Your task to perform on an android device: turn on location history Image 0: 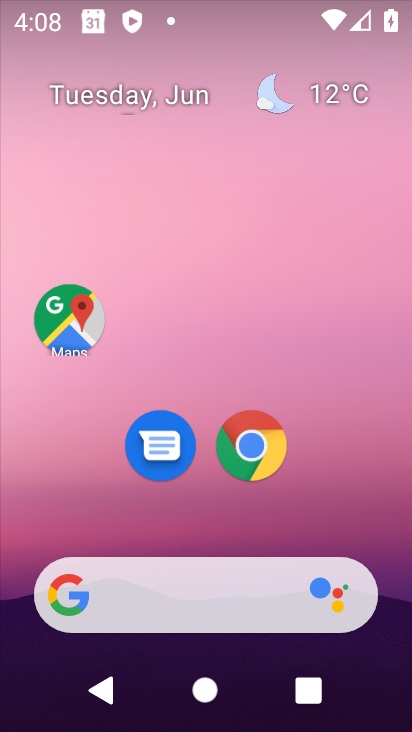
Step 0: drag from (364, 506) to (388, 0)
Your task to perform on an android device: turn on location history Image 1: 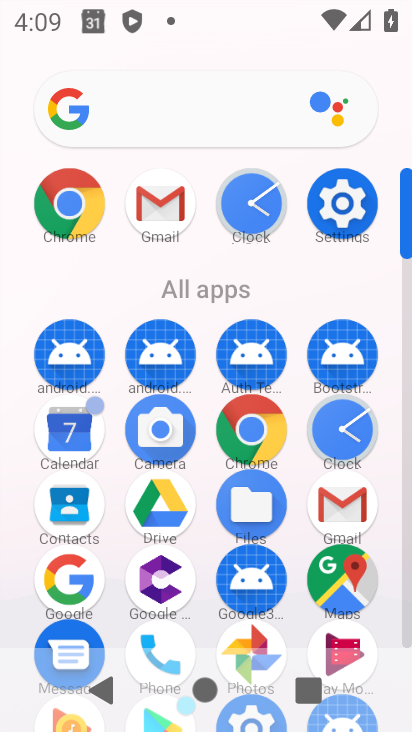
Step 1: click (351, 198)
Your task to perform on an android device: turn on location history Image 2: 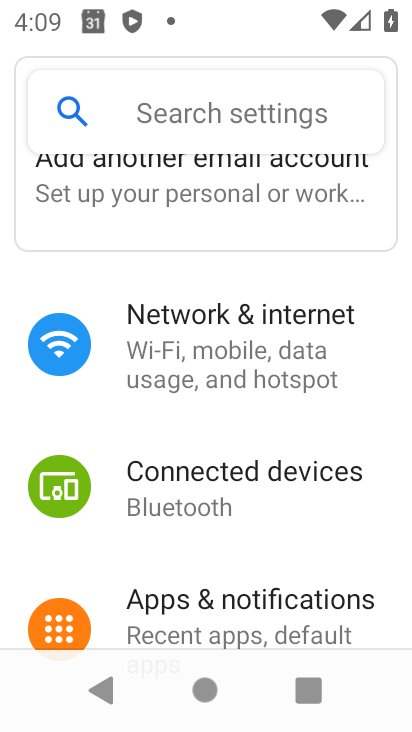
Step 2: drag from (235, 524) to (279, 113)
Your task to perform on an android device: turn on location history Image 3: 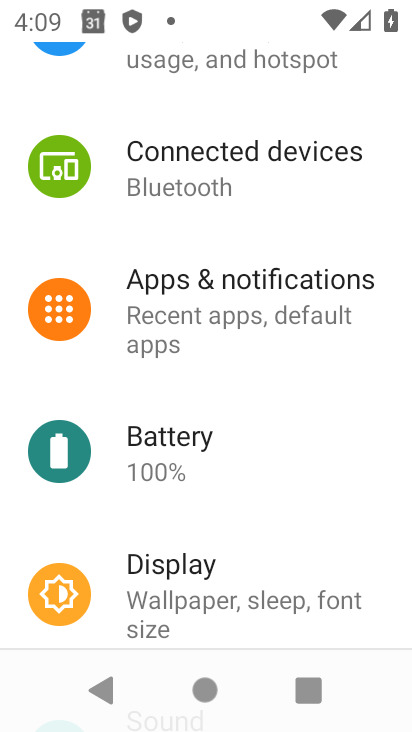
Step 3: drag from (200, 513) to (222, 56)
Your task to perform on an android device: turn on location history Image 4: 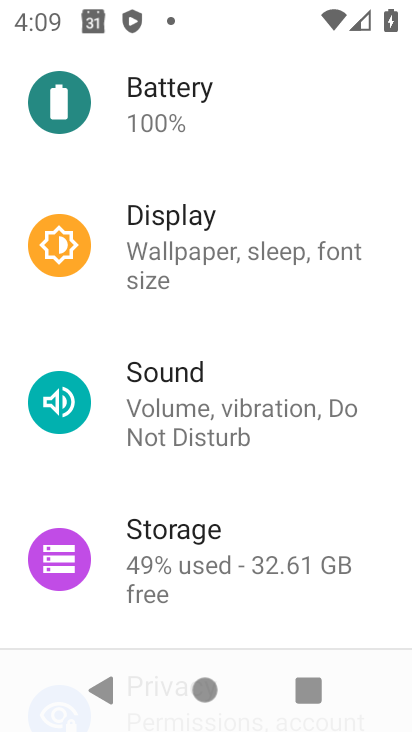
Step 4: drag from (211, 557) to (289, 90)
Your task to perform on an android device: turn on location history Image 5: 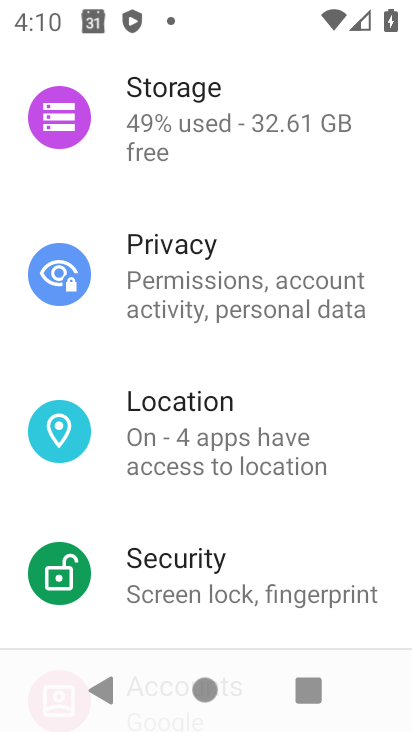
Step 5: click (207, 419)
Your task to perform on an android device: turn on location history Image 6: 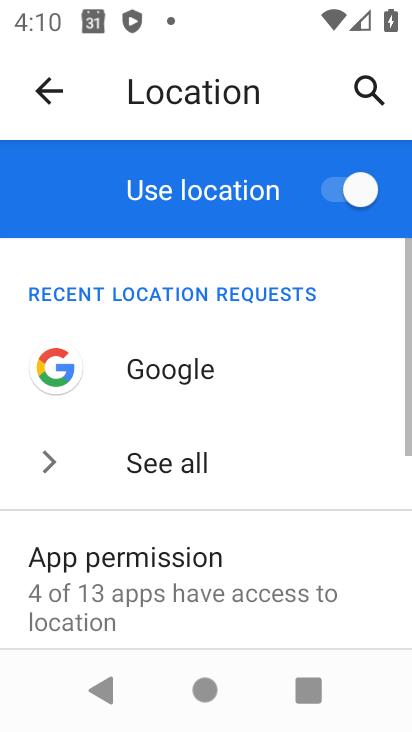
Step 6: drag from (259, 546) to (312, 121)
Your task to perform on an android device: turn on location history Image 7: 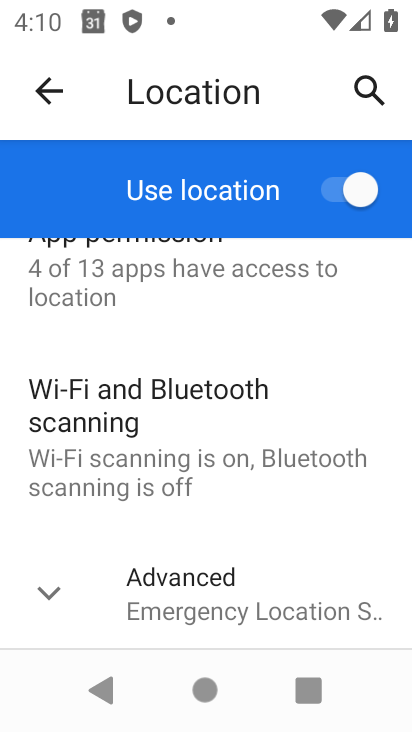
Step 7: click (178, 579)
Your task to perform on an android device: turn on location history Image 8: 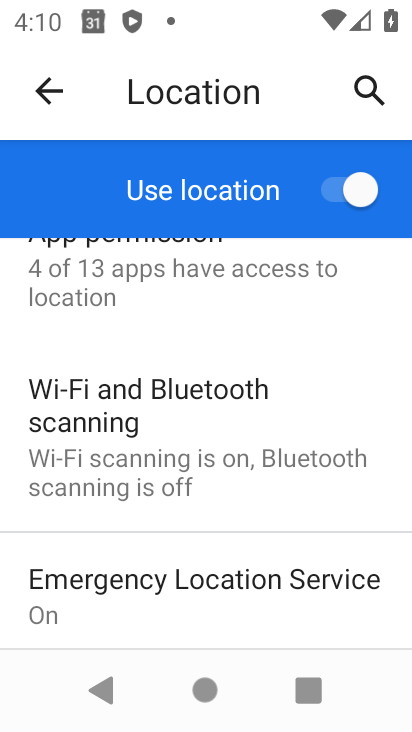
Step 8: drag from (178, 575) to (180, 201)
Your task to perform on an android device: turn on location history Image 9: 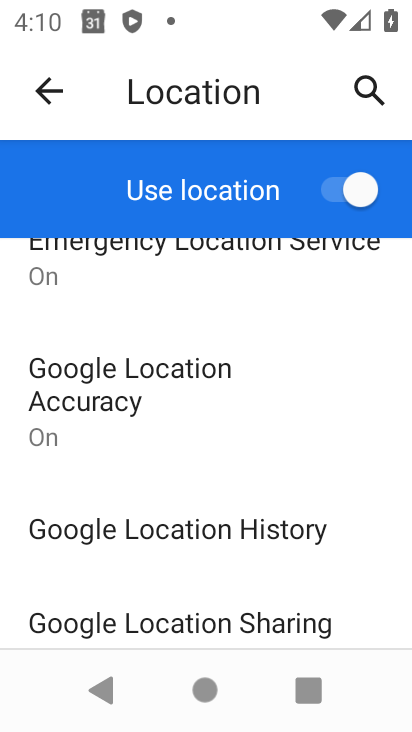
Step 9: click (179, 529)
Your task to perform on an android device: turn on location history Image 10: 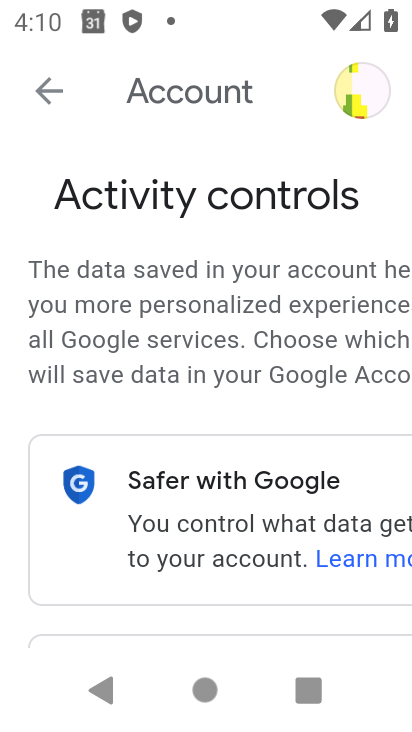
Step 10: task complete